Your task to perform on an android device: Show me popular videos on Youtube Image 0: 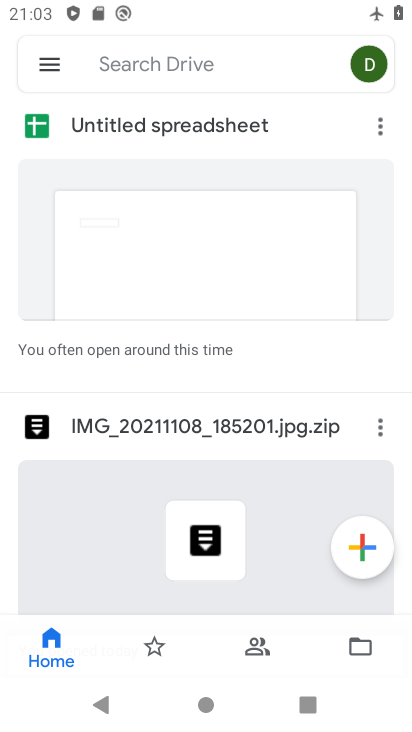
Step 0: press home button
Your task to perform on an android device: Show me popular videos on Youtube Image 1: 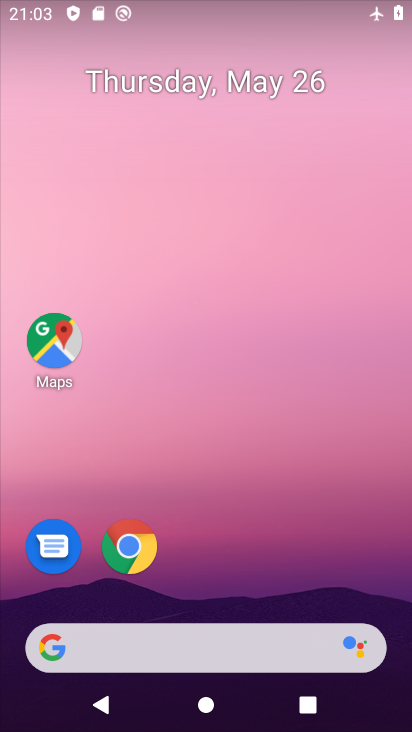
Step 1: drag from (263, 602) to (237, 241)
Your task to perform on an android device: Show me popular videos on Youtube Image 2: 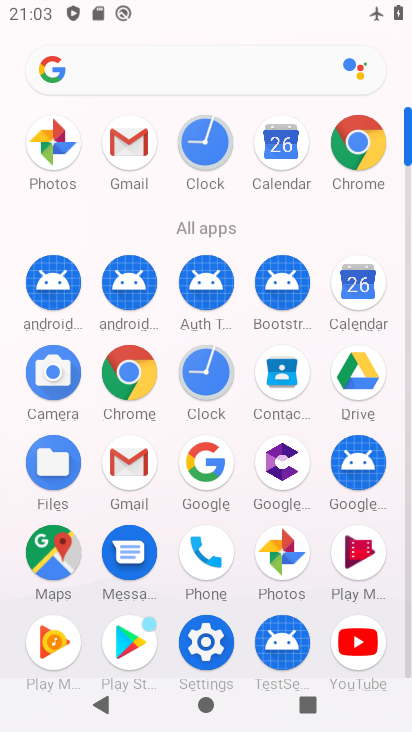
Step 2: click (365, 645)
Your task to perform on an android device: Show me popular videos on Youtube Image 3: 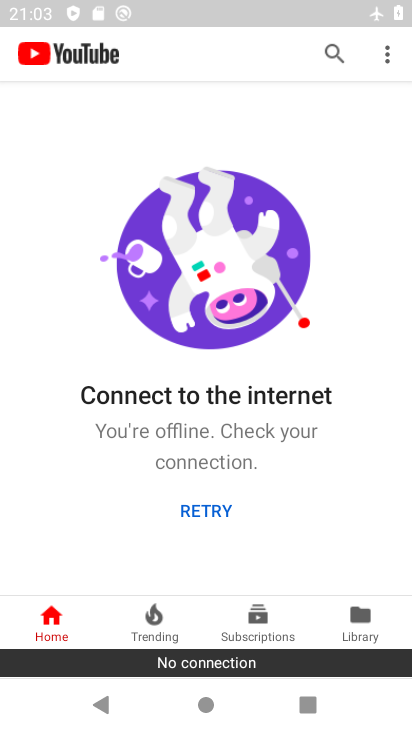
Step 3: task complete